Your task to perform on an android device: turn on location history Image 0: 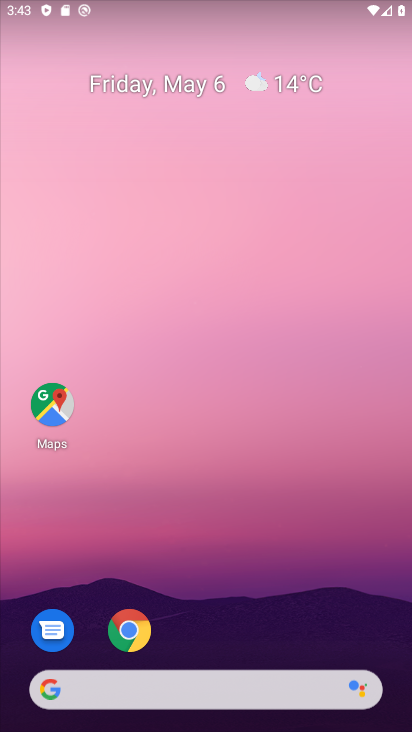
Step 0: drag from (298, 537) to (287, 16)
Your task to perform on an android device: turn on location history Image 1: 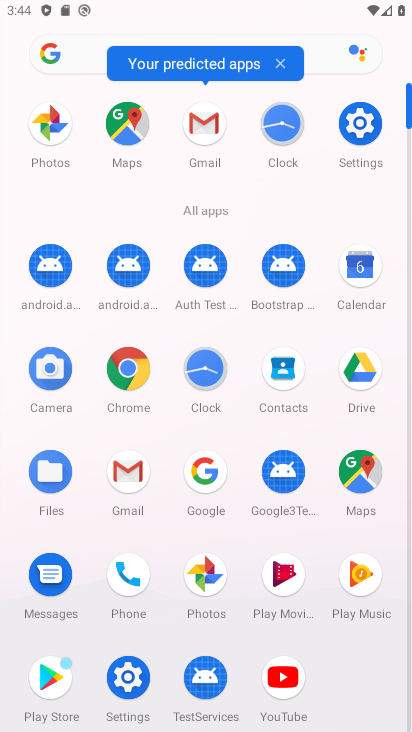
Step 1: click (123, 111)
Your task to perform on an android device: turn on location history Image 2: 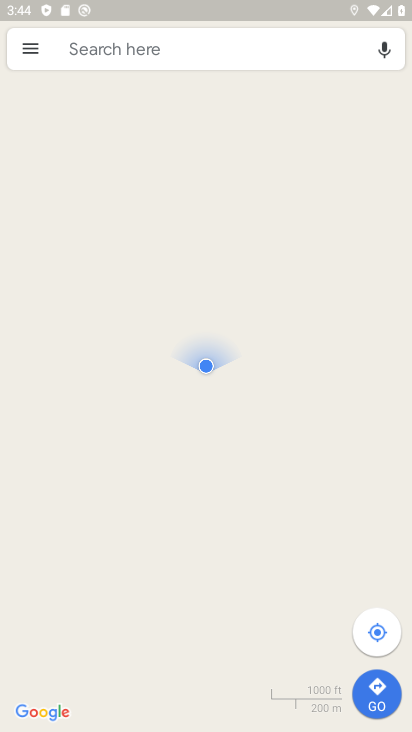
Step 2: click (25, 50)
Your task to perform on an android device: turn on location history Image 3: 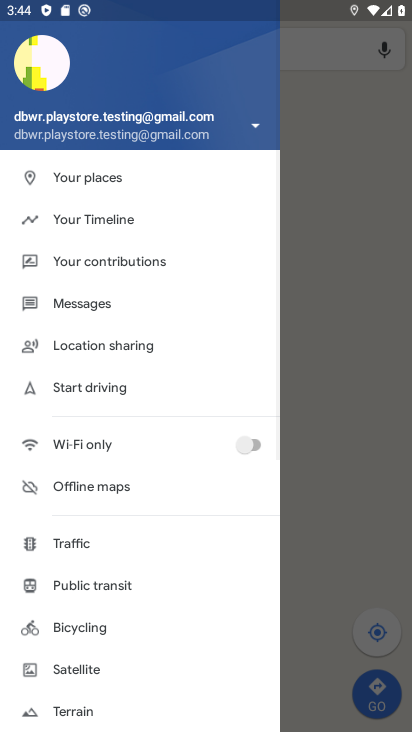
Step 3: click (94, 218)
Your task to perform on an android device: turn on location history Image 4: 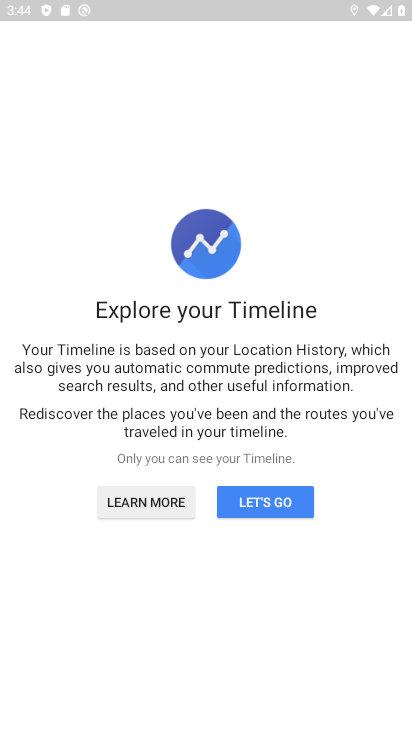
Step 4: click (268, 499)
Your task to perform on an android device: turn on location history Image 5: 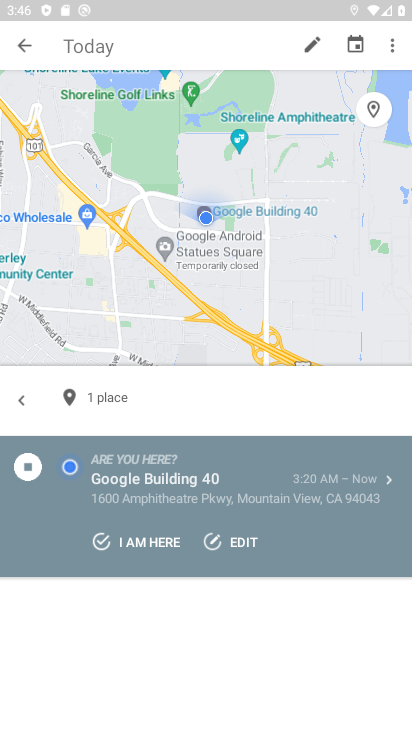
Step 5: click (388, 39)
Your task to perform on an android device: turn on location history Image 6: 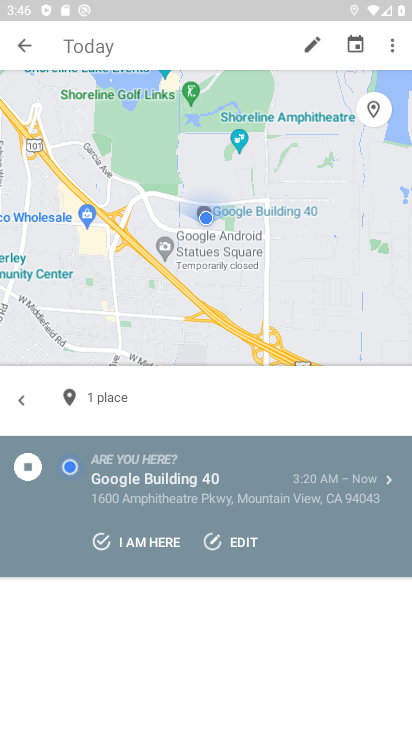
Step 6: click (393, 45)
Your task to perform on an android device: turn on location history Image 7: 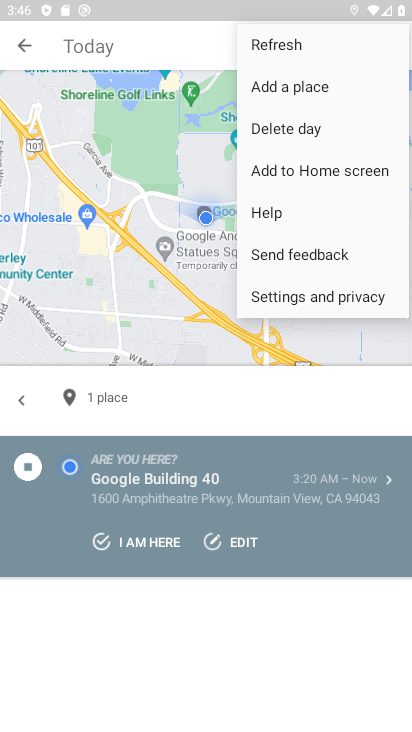
Step 7: click (312, 294)
Your task to perform on an android device: turn on location history Image 8: 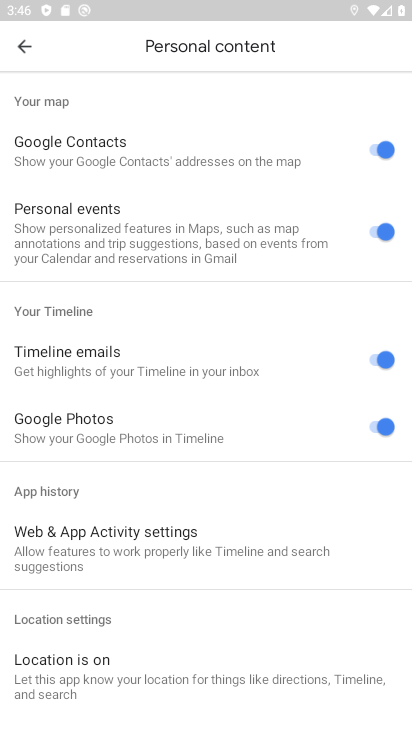
Step 8: drag from (187, 576) to (208, 43)
Your task to perform on an android device: turn on location history Image 9: 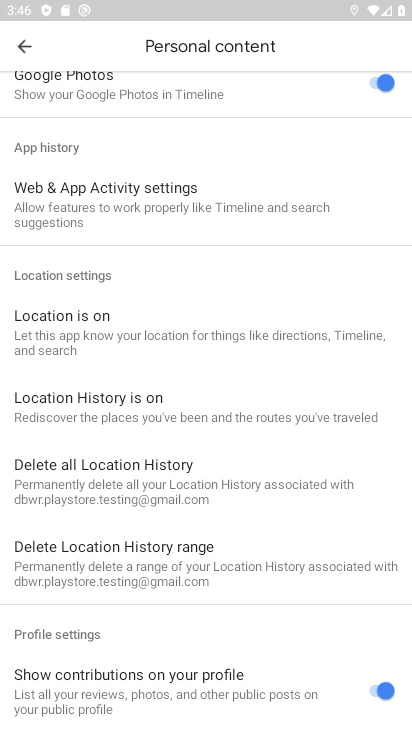
Step 9: click (152, 471)
Your task to perform on an android device: turn on location history Image 10: 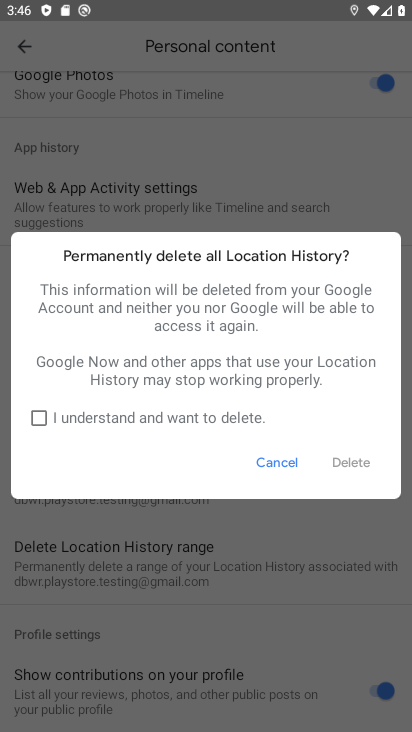
Step 10: click (260, 454)
Your task to perform on an android device: turn on location history Image 11: 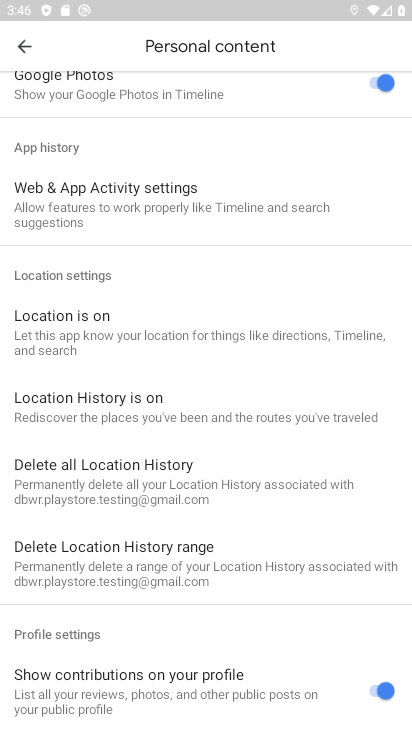
Step 11: click (122, 411)
Your task to perform on an android device: turn on location history Image 12: 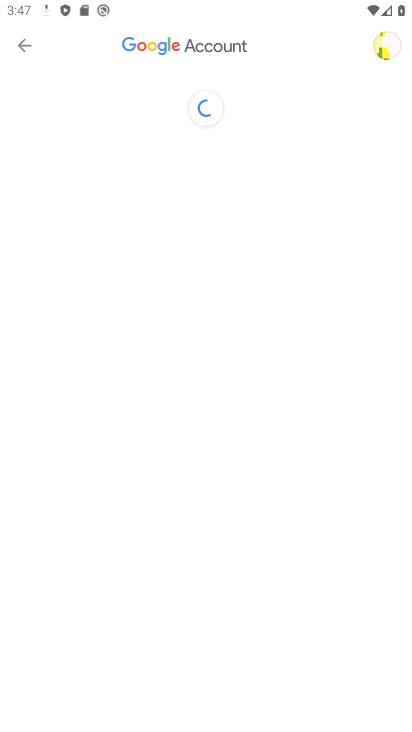
Step 12: drag from (270, 506) to (262, 160)
Your task to perform on an android device: turn on location history Image 13: 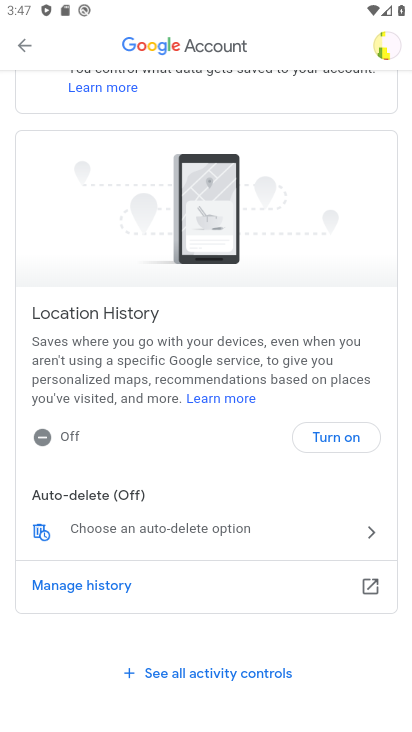
Step 13: click (352, 436)
Your task to perform on an android device: turn on location history Image 14: 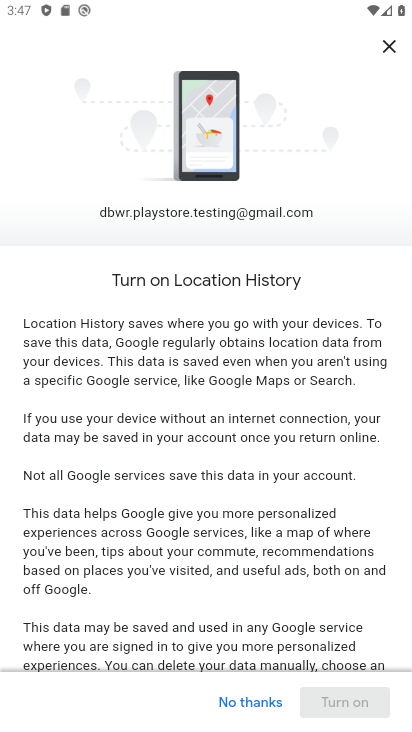
Step 14: drag from (359, 631) to (339, 268)
Your task to perform on an android device: turn on location history Image 15: 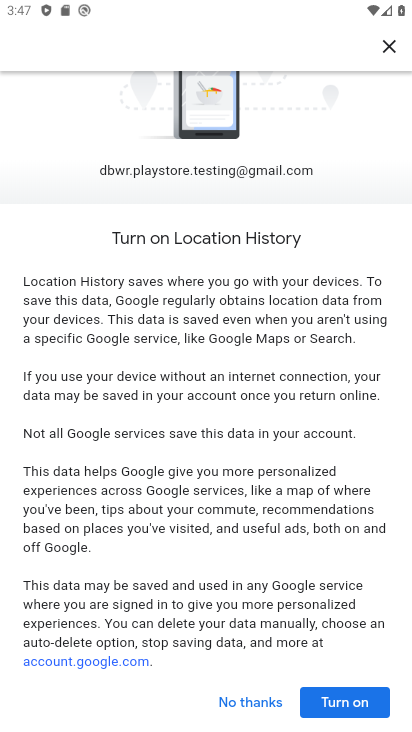
Step 15: click (359, 702)
Your task to perform on an android device: turn on location history Image 16: 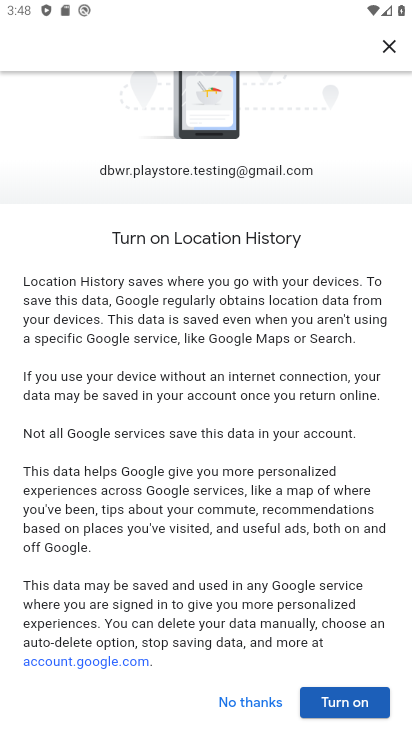
Step 16: click (360, 704)
Your task to perform on an android device: turn on location history Image 17: 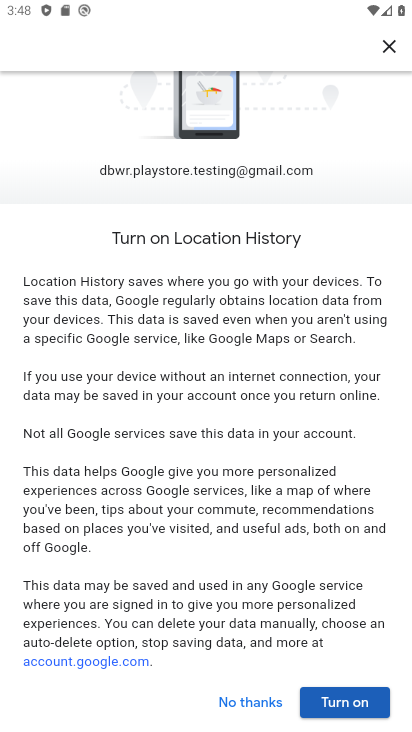
Step 17: click (365, 706)
Your task to perform on an android device: turn on location history Image 18: 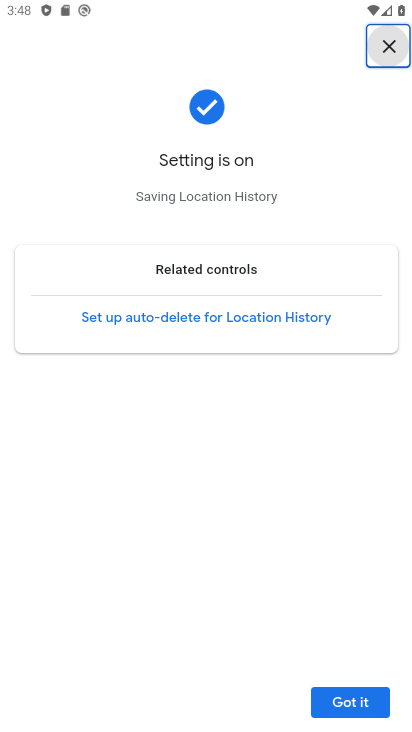
Step 18: click (371, 699)
Your task to perform on an android device: turn on location history Image 19: 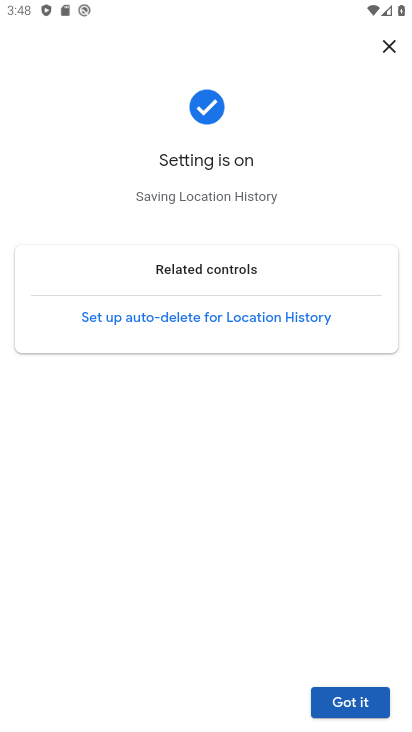
Step 19: click (350, 690)
Your task to perform on an android device: turn on location history Image 20: 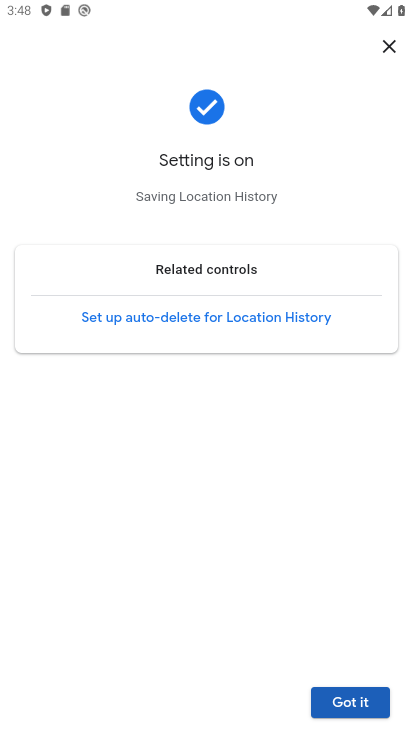
Step 20: click (350, 690)
Your task to perform on an android device: turn on location history Image 21: 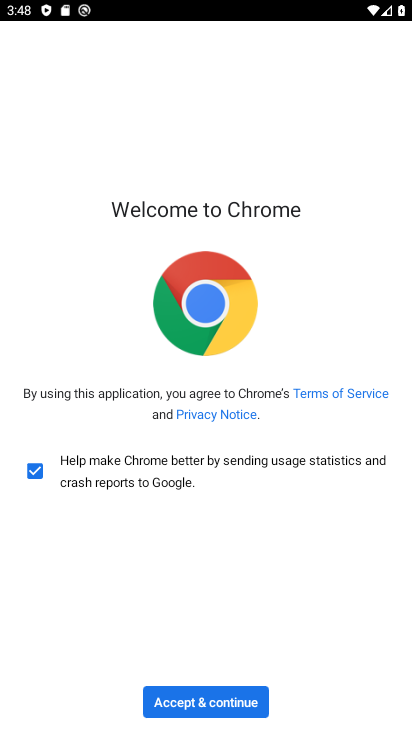
Step 21: task complete